Your task to perform on an android device: open app "Google Chrome" Image 0: 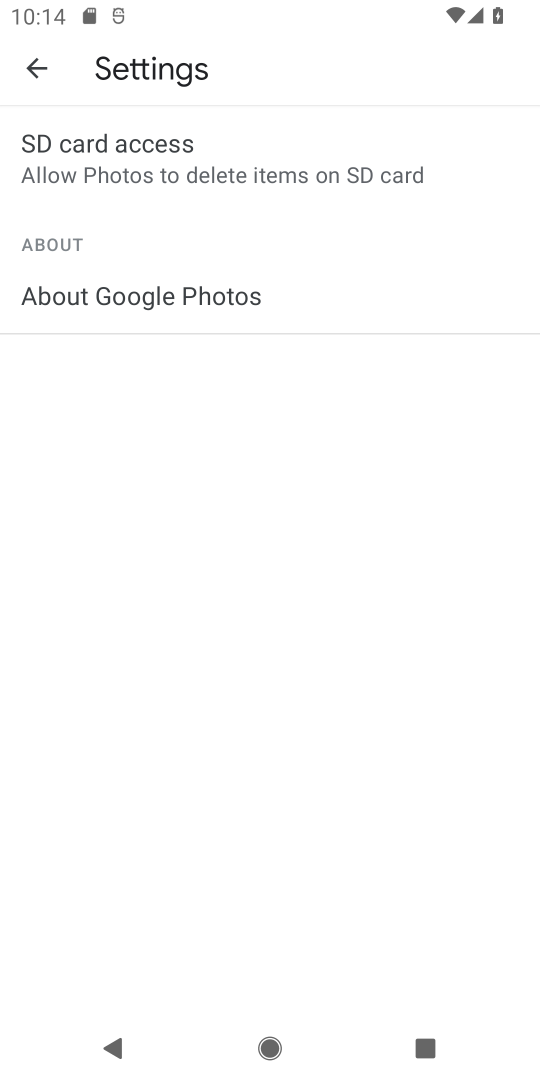
Step 0: press home button
Your task to perform on an android device: open app "Google Chrome" Image 1: 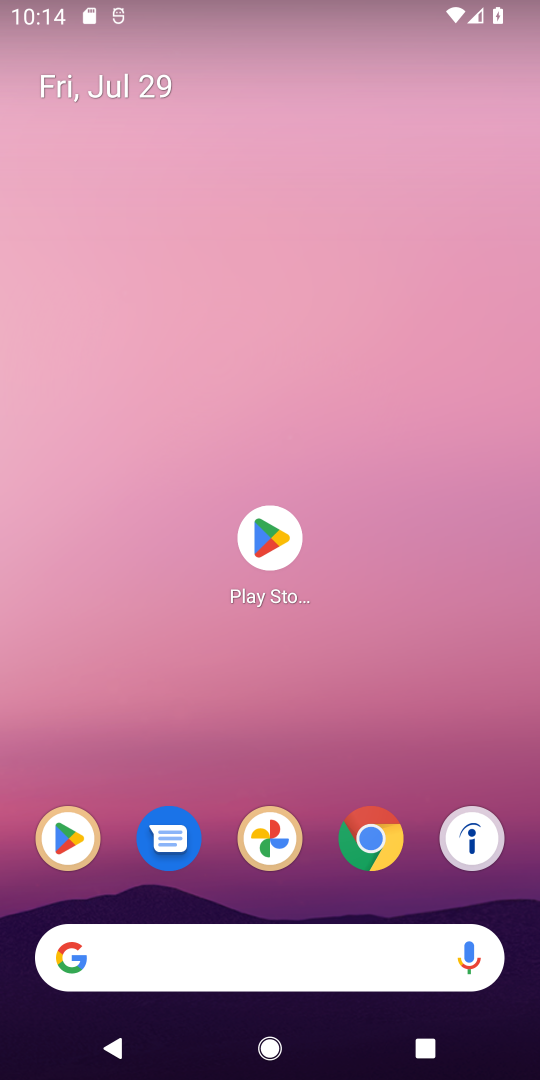
Step 1: click (279, 535)
Your task to perform on an android device: open app "Google Chrome" Image 2: 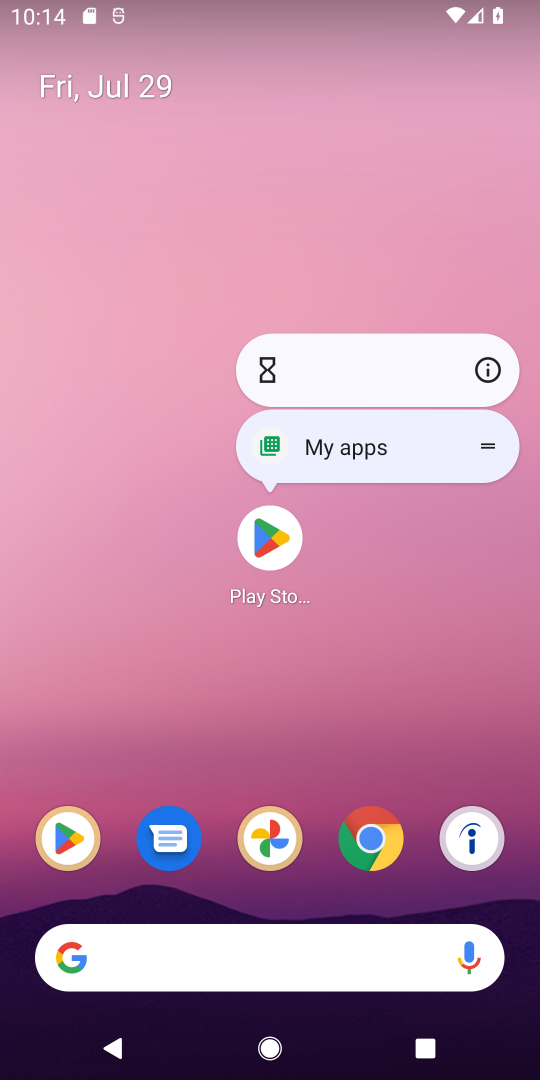
Step 2: click (371, 830)
Your task to perform on an android device: open app "Google Chrome" Image 3: 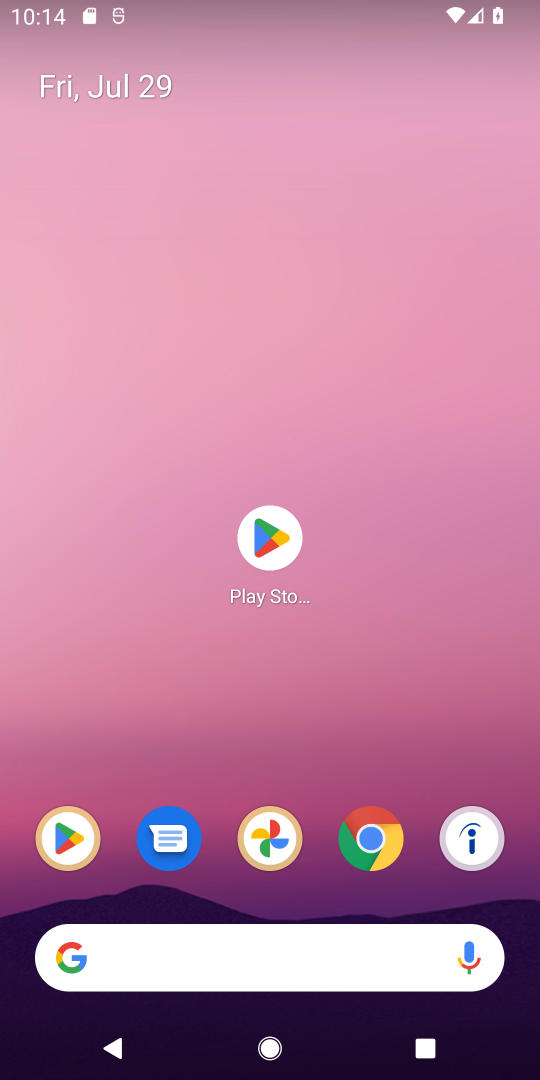
Step 3: click (373, 831)
Your task to perform on an android device: open app "Google Chrome" Image 4: 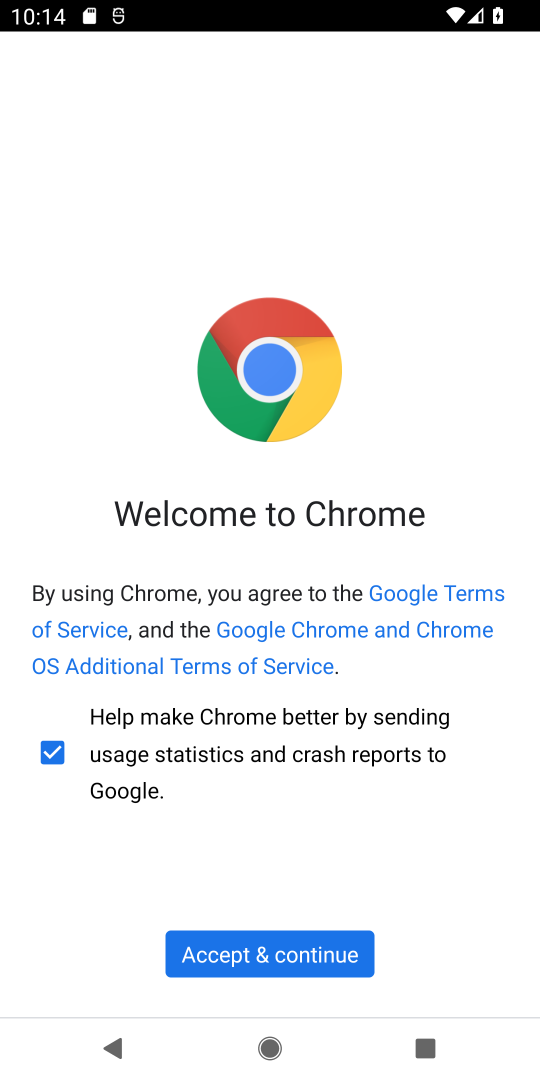
Step 4: click (260, 952)
Your task to perform on an android device: open app "Google Chrome" Image 5: 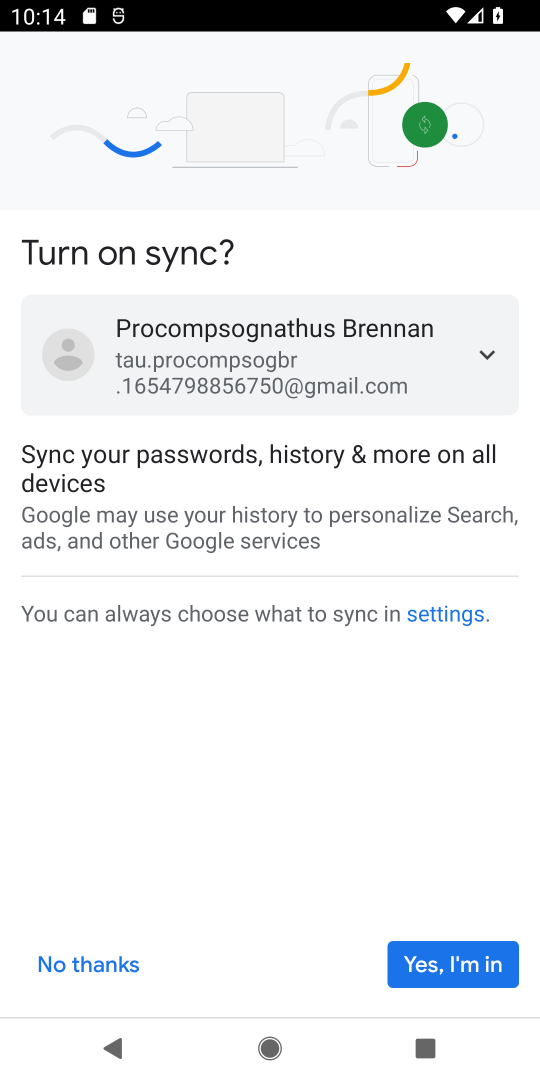
Step 5: click (417, 974)
Your task to perform on an android device: open app "Google Chrome" Image 6: 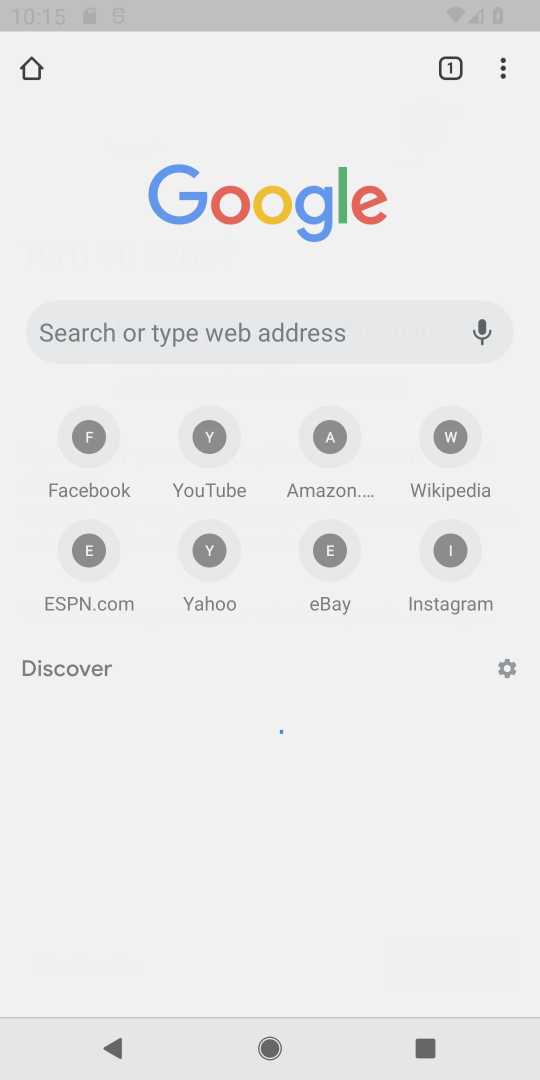
Step 6: click (437, 968)
Your task to perform on an android device: open app "Google Chrome" Image 7: 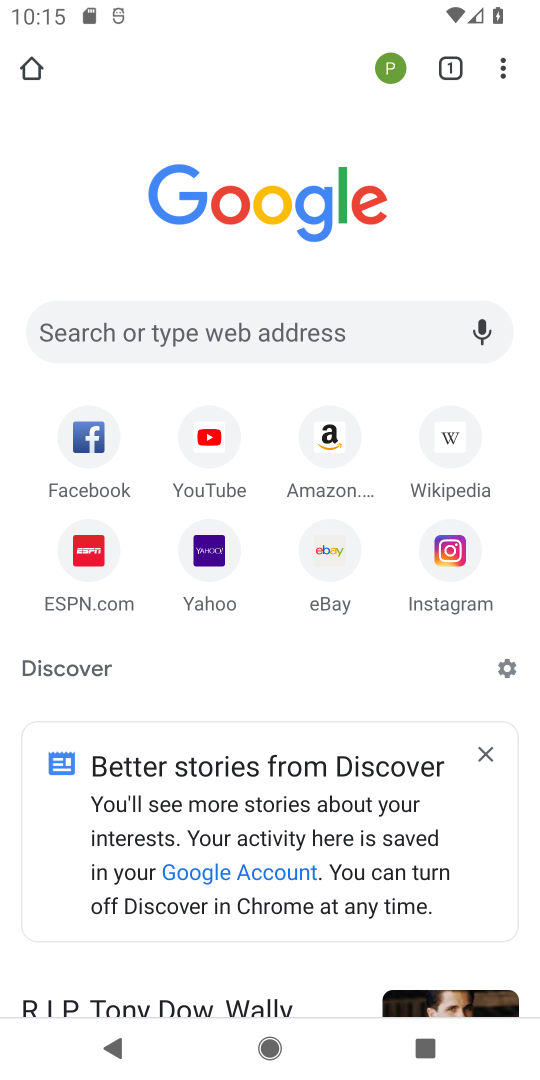
Step 7: task complete